Your task to perform on an android device: Open Google Chrome Image 0: 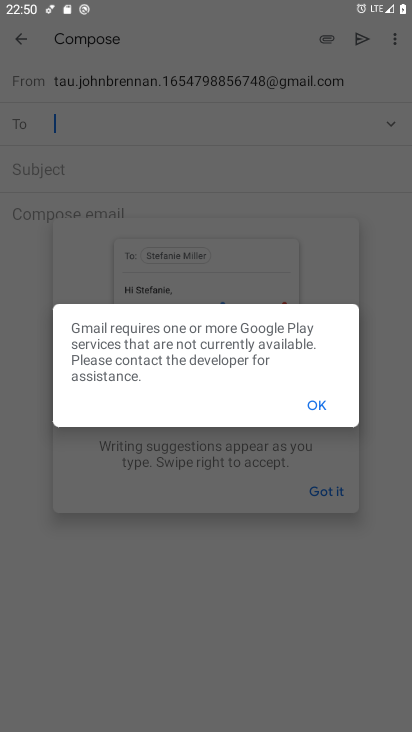
Step 0: press home button
Your task to perform on an android device: Open Google Chrome Image 1: 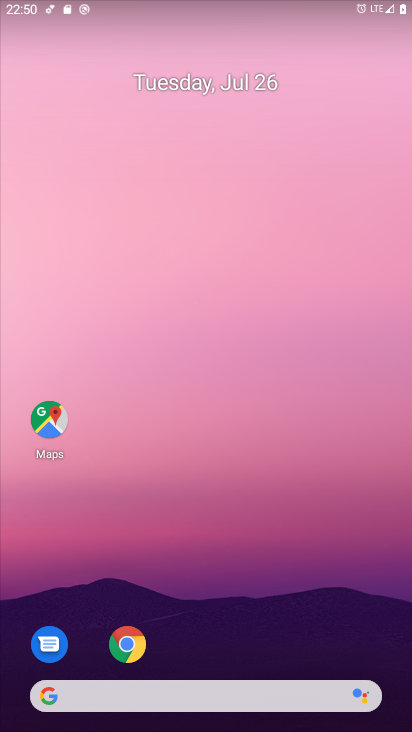
Step 1: click (124, 643)
Your task to perform on an android device: Open Google Chrome Image 2: 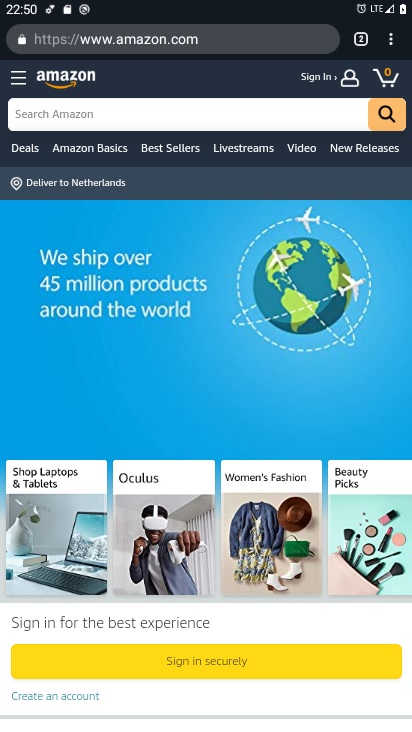
Step 2: task complete